Your task to perform on an android device: Search for "beats solo 3" on ebay, select the first entry, and add it to the cart. Image 0: 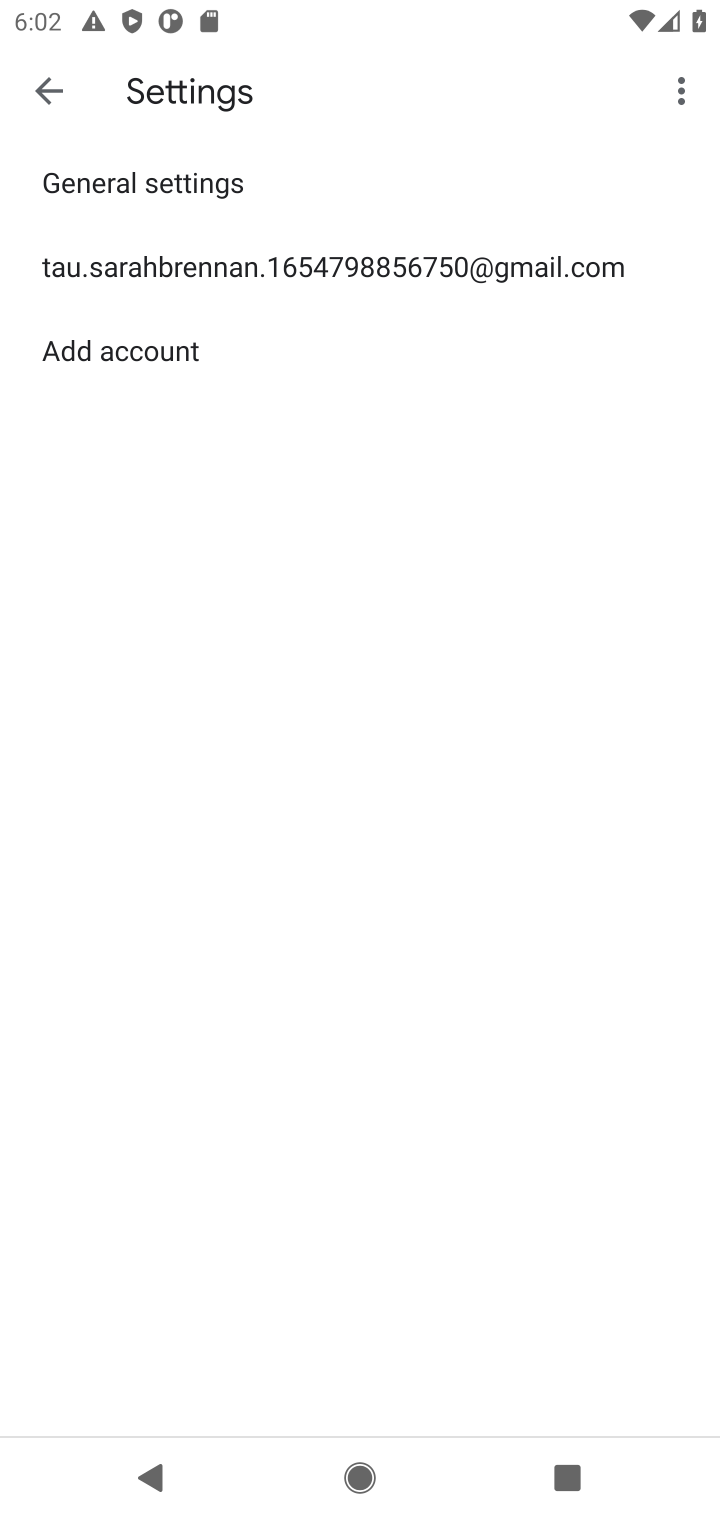
Step 0: press home button
Your task to perform on an android device: Search for "beats solo 3" on ebay, select the first entry, and add it to the cart. Image 1: 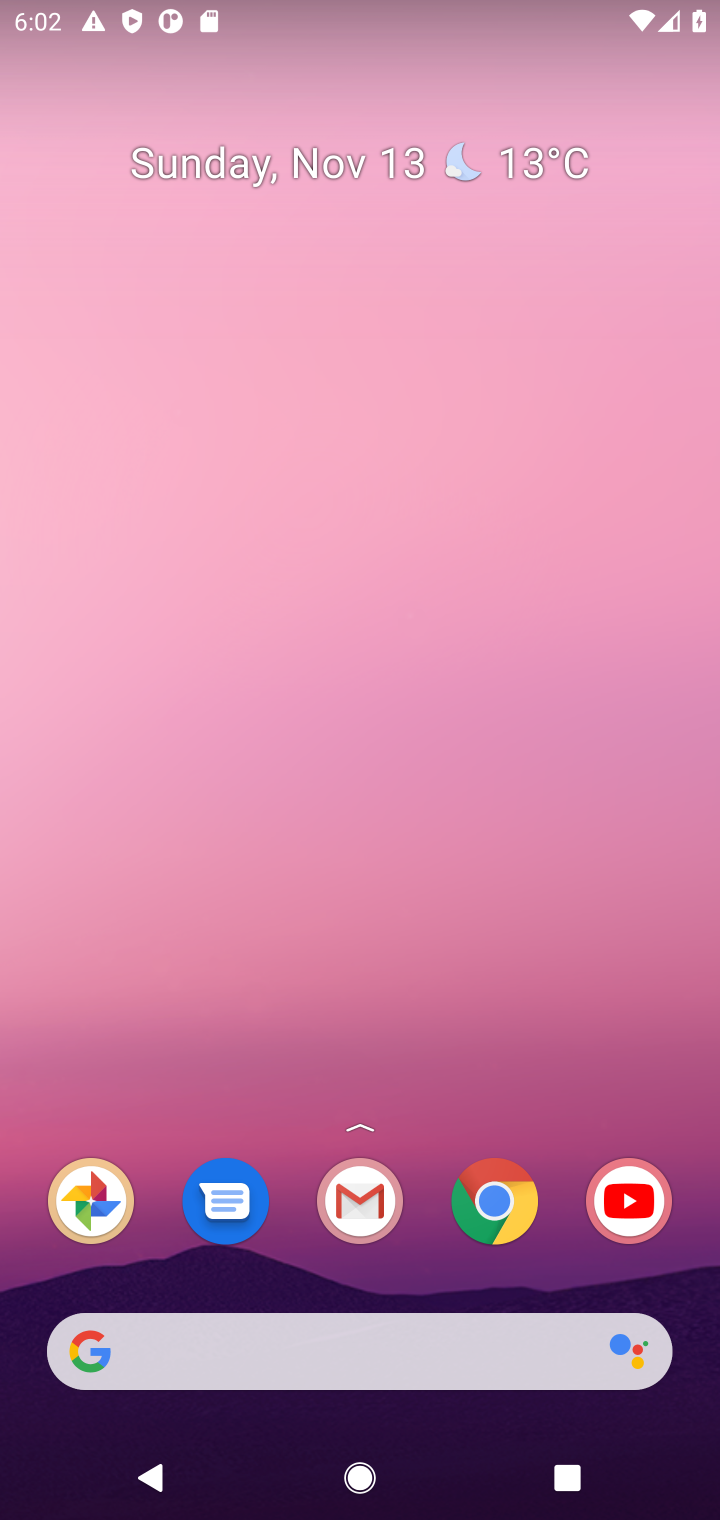
Step 1: drag from (428, 1303) to (411, 129)
Your task to perform on an android device: Search for "beats solo 3" on ebay, select the first entry, and add it to the cart. Image 2: 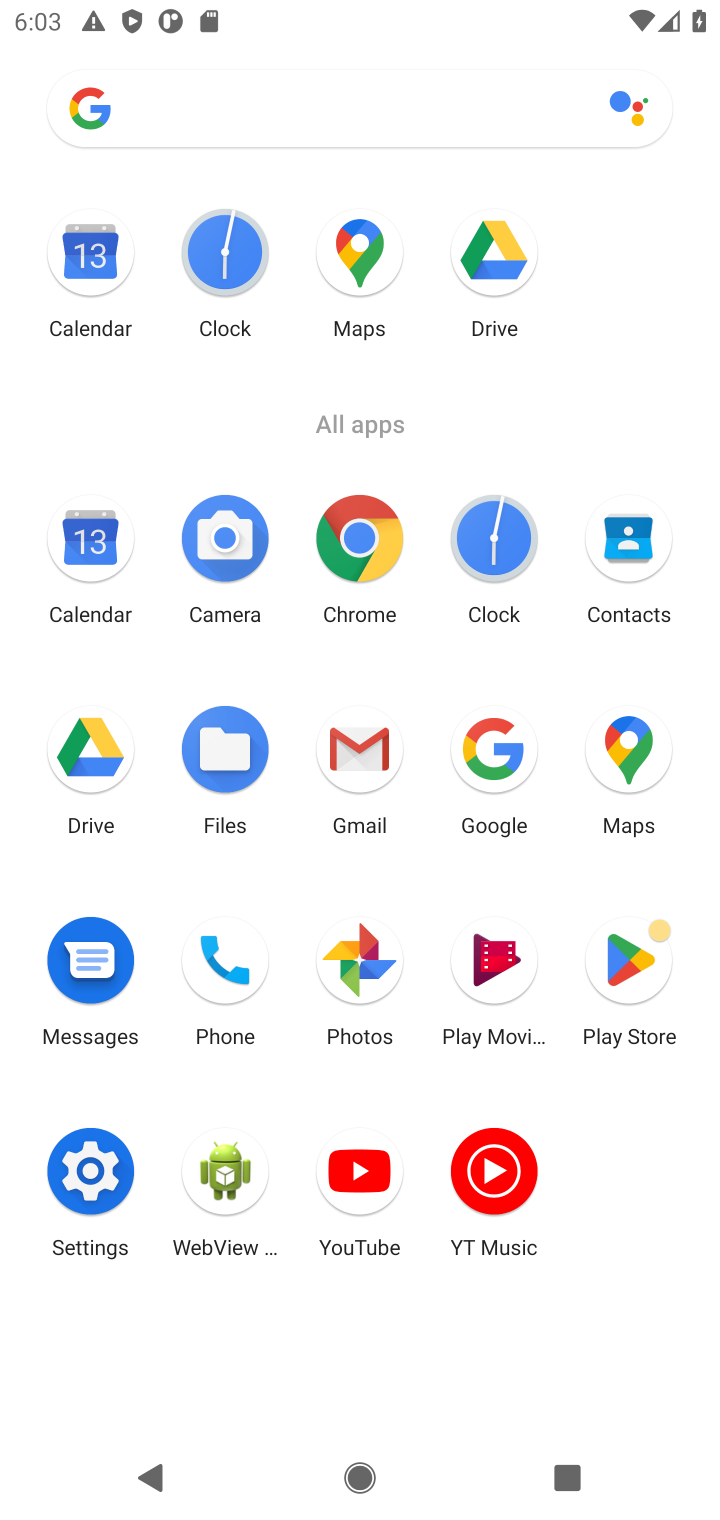
Step 2: click (360, 526)
Your task to perform on an android device: Search for "beats solo 3" on ebay, select the first entry, and add it to the cart. Image 3: 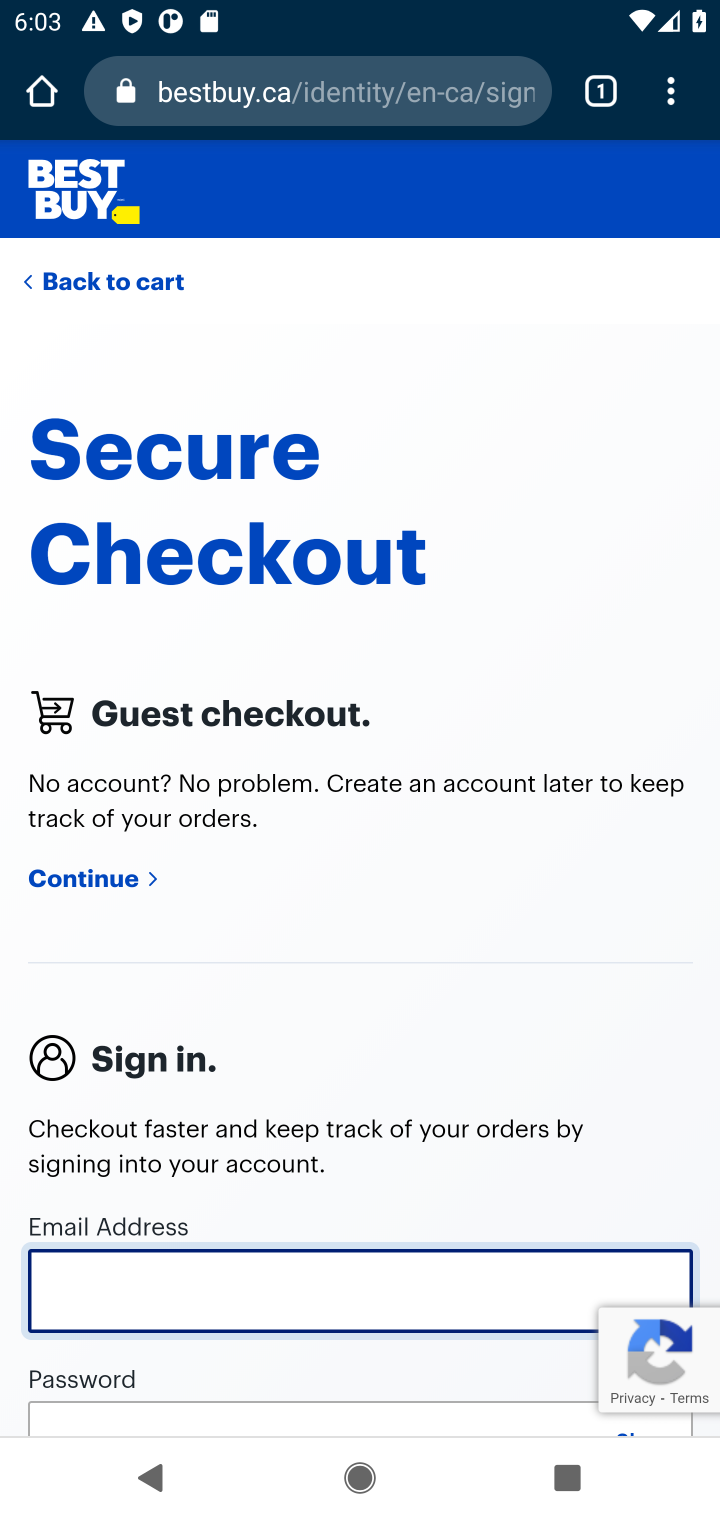
Step 3: click (380, 116)
Your task to perform on an android device: Search for "beats solo 3" on ebay, select the first entry, and add it to the cart. Image 4: 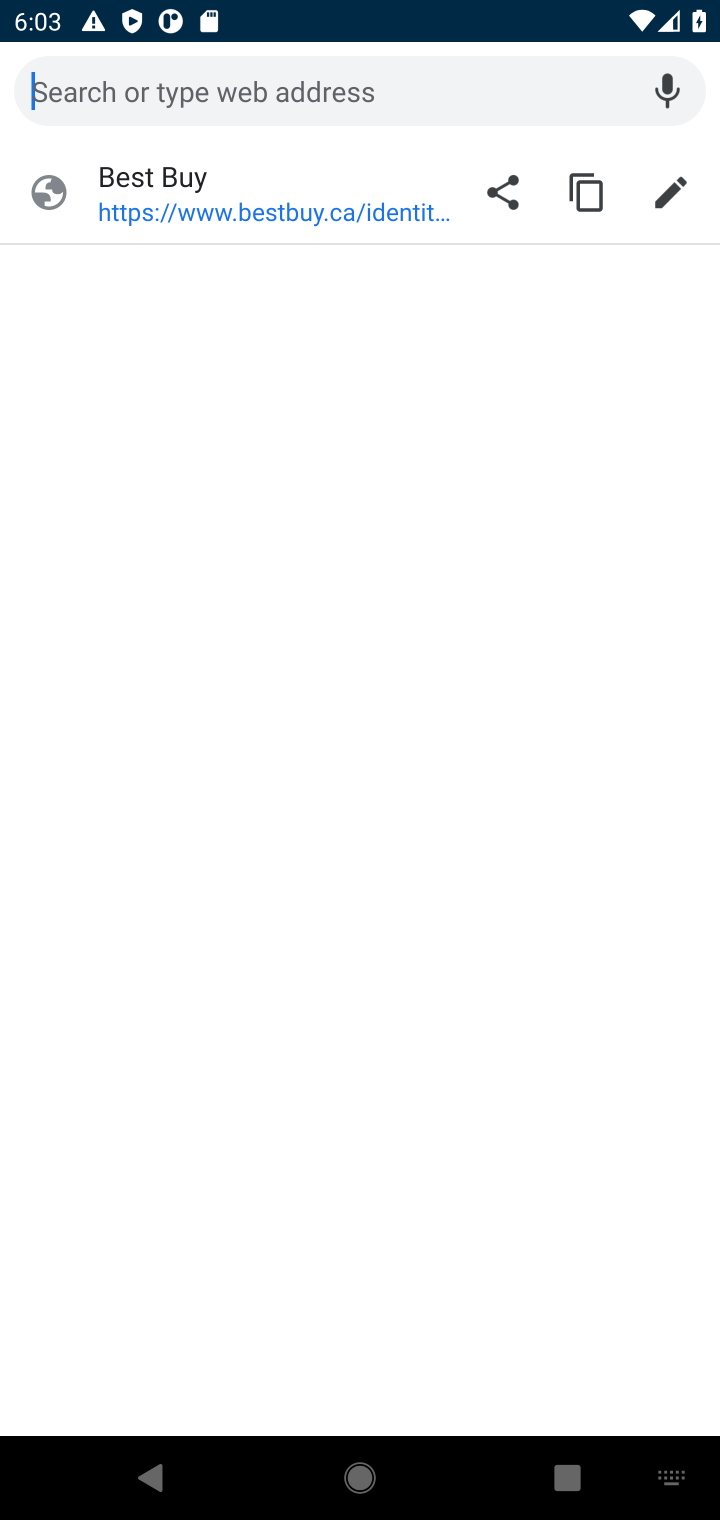
Step 4: type "ebay.com"
Your task to perform on an android device: Search for "beats solo 3" on ebay, select the first entry, and add it to the cart. Image 5: 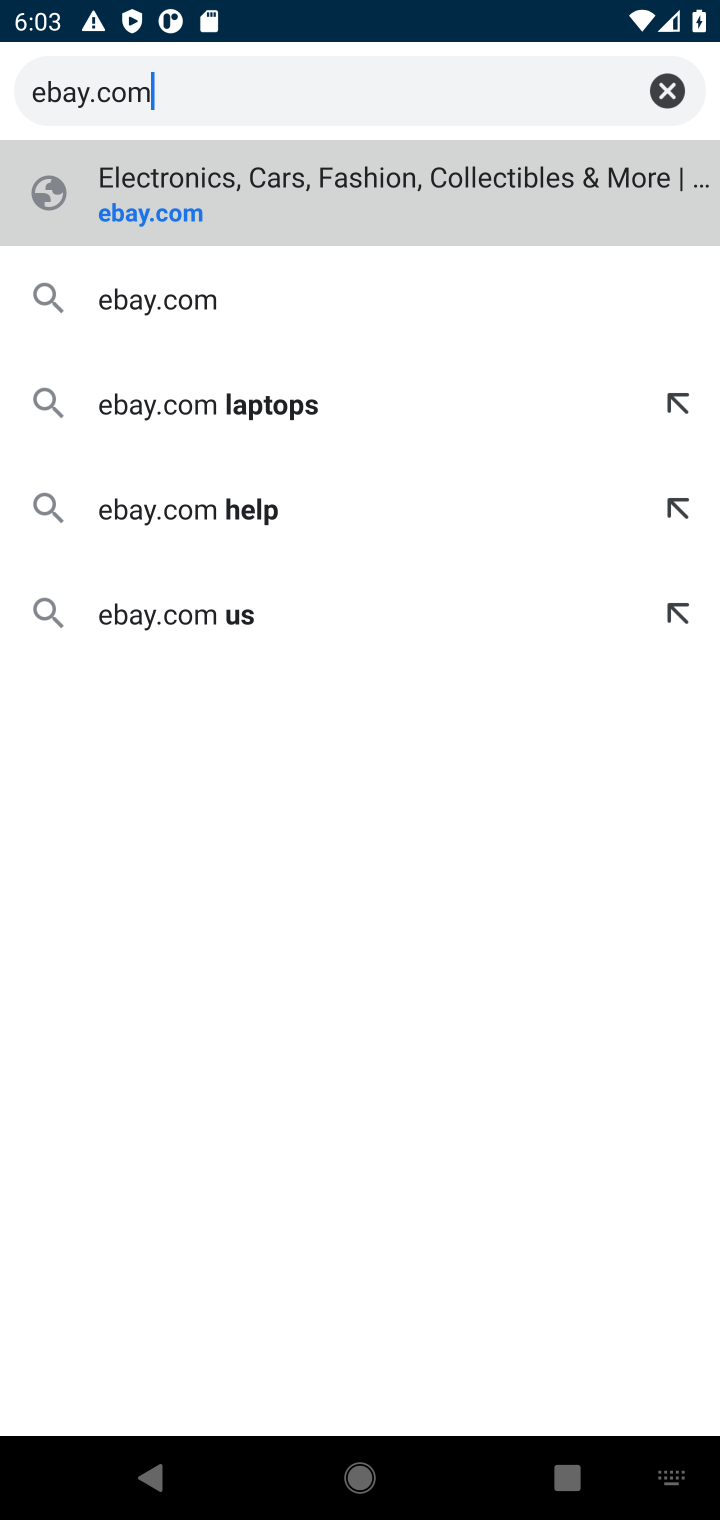
Step 5: press enter
Your task to perform on an android device: Search for "beats solo 3" on ebay, select the first entry, and add it to the cart. Image 6: 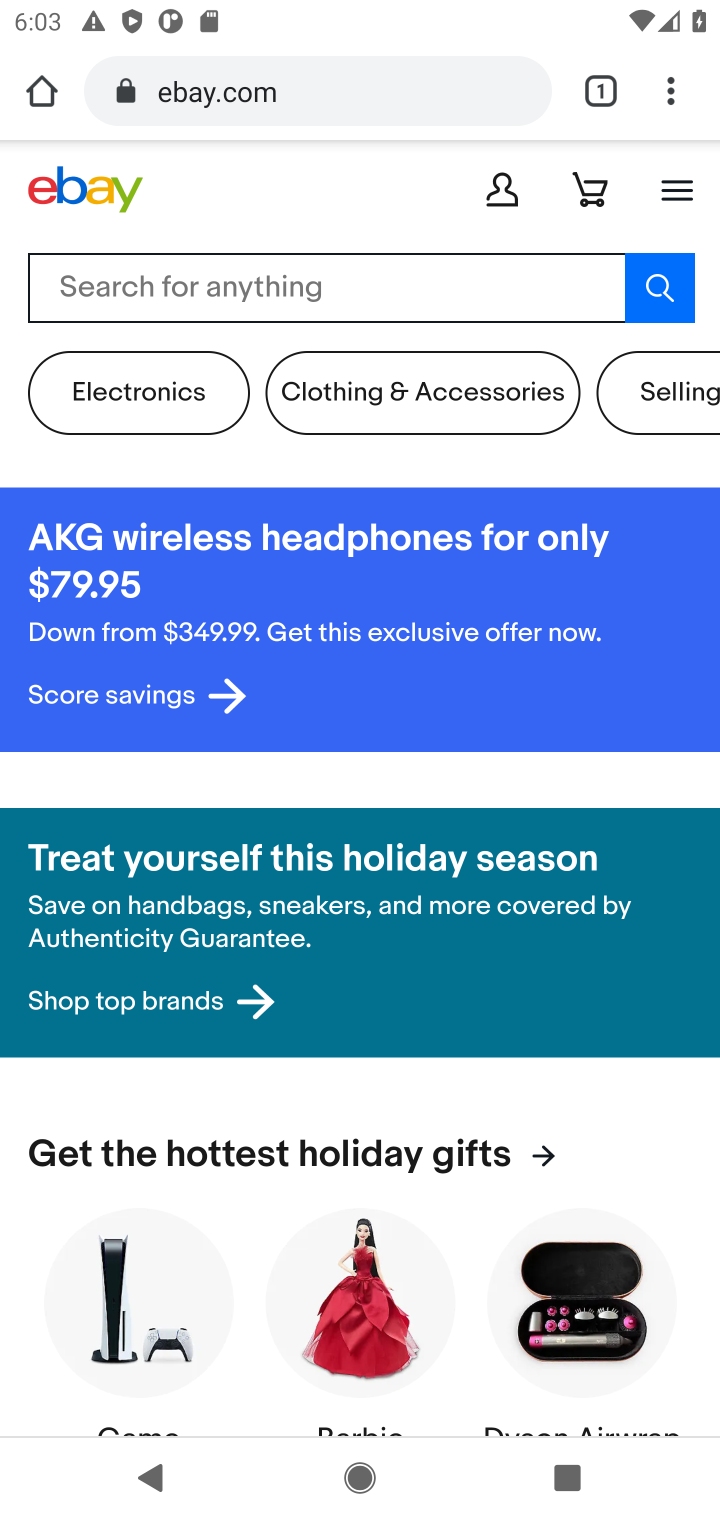
Step 6: click (293, 269)
Your task to perform on an android device: Search for "beats solo 3" on ebay, select the first entry, and add it to the cart. Image 7: 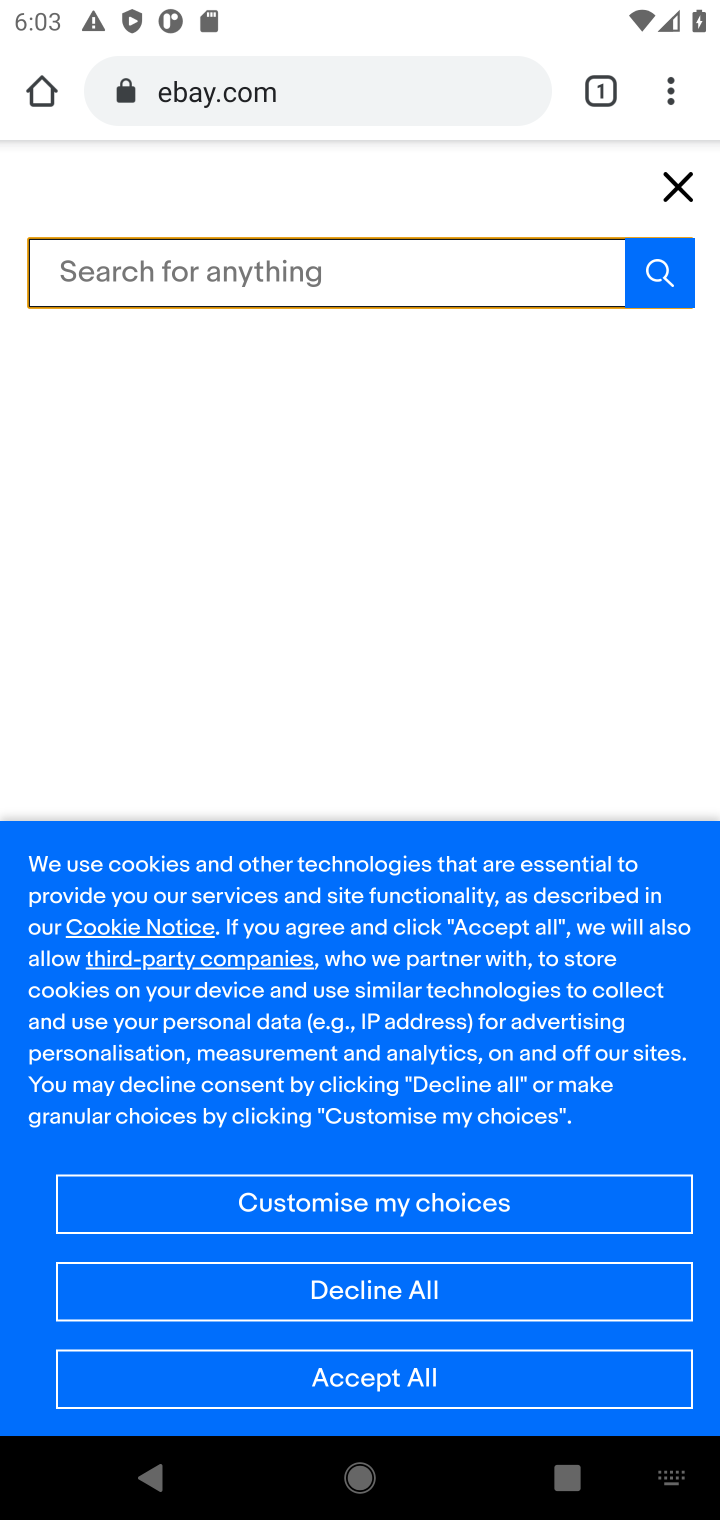
Step 7: type "beats solo 3"
Your task to perform on an android device: Search for "beats solo 3" on ebay, select the first entry, and add it to the cart. Image 8: 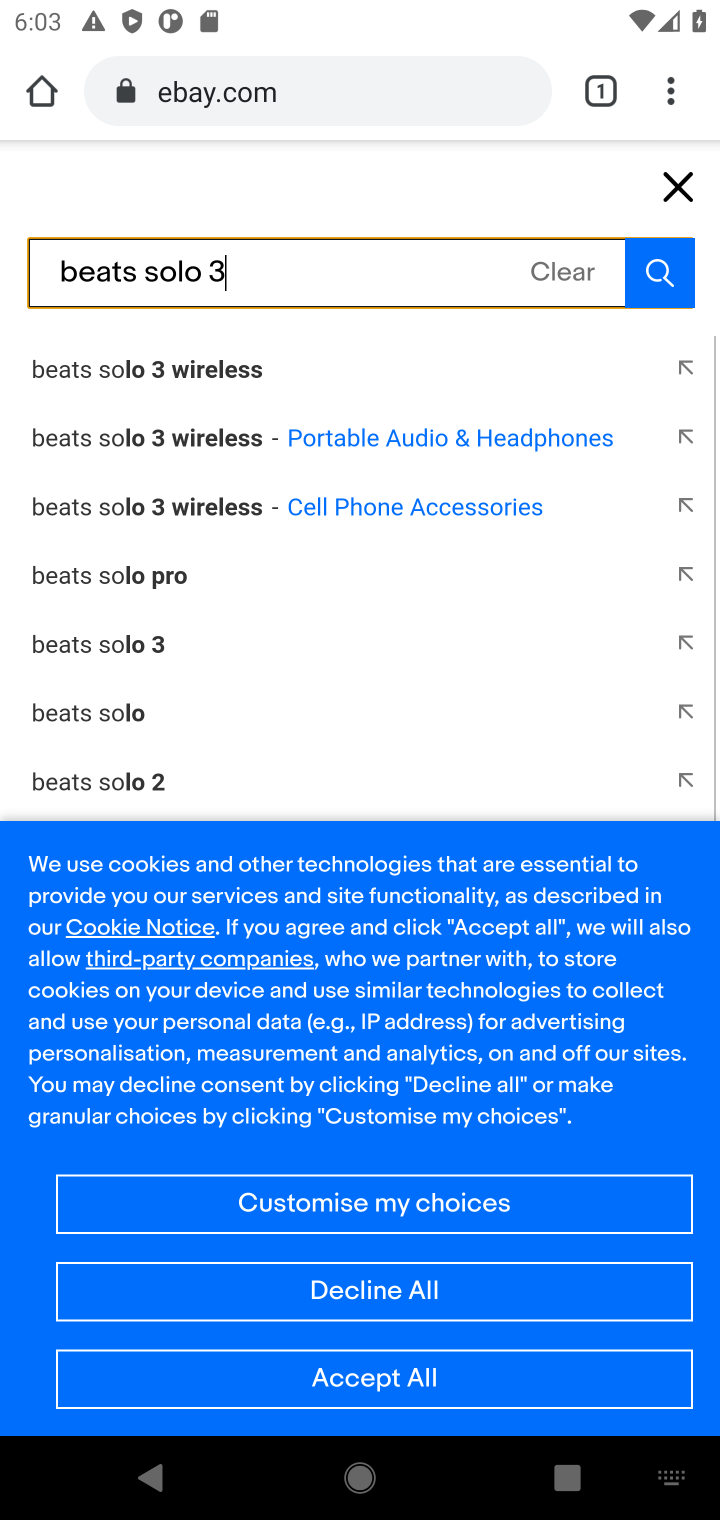
Step 8: press enter
Your task to perform on an android device: Search for "beats solo 3" on ebay, select the first entry, and add it to the cart. Image 9: 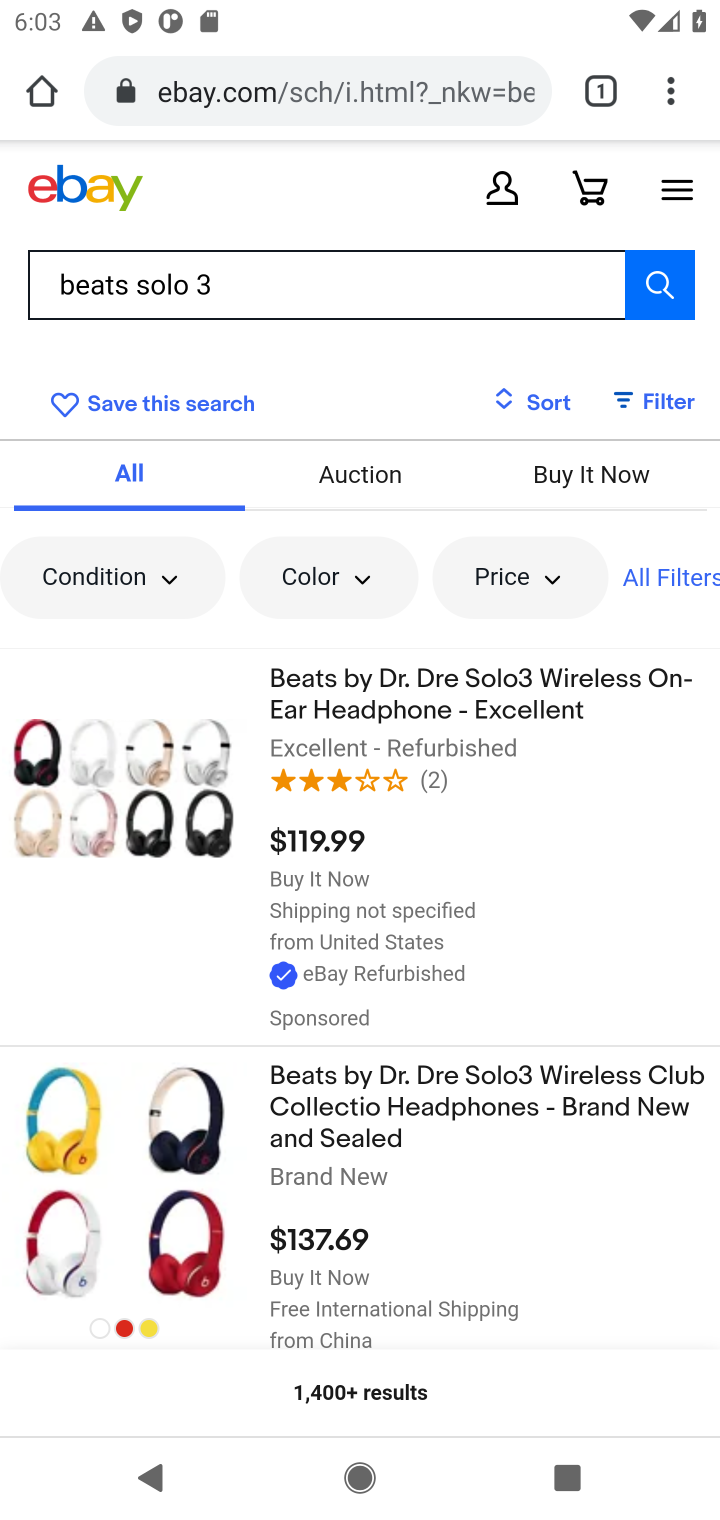
Step 9: click (415, 721)
Your task to perform on an android device: Search for "beats solo 3" on ebay, select the first entry, and add it to the cart. Image 10: 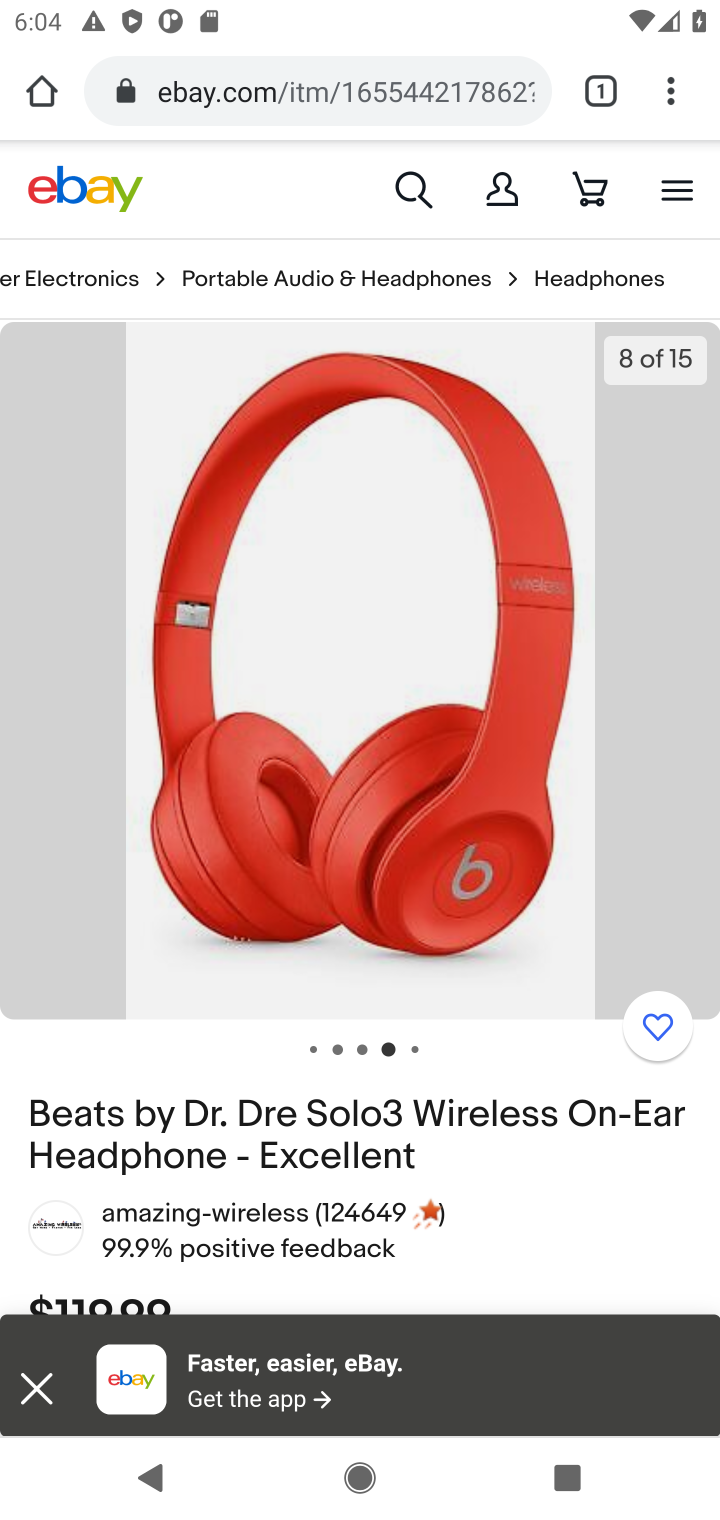
Step 10: drag from (511, 990) to (502, 282)
Your task to perform on an android device: Search for "beats solo 3" on ebay, select the first entry, and add it to the cart. Image 11: 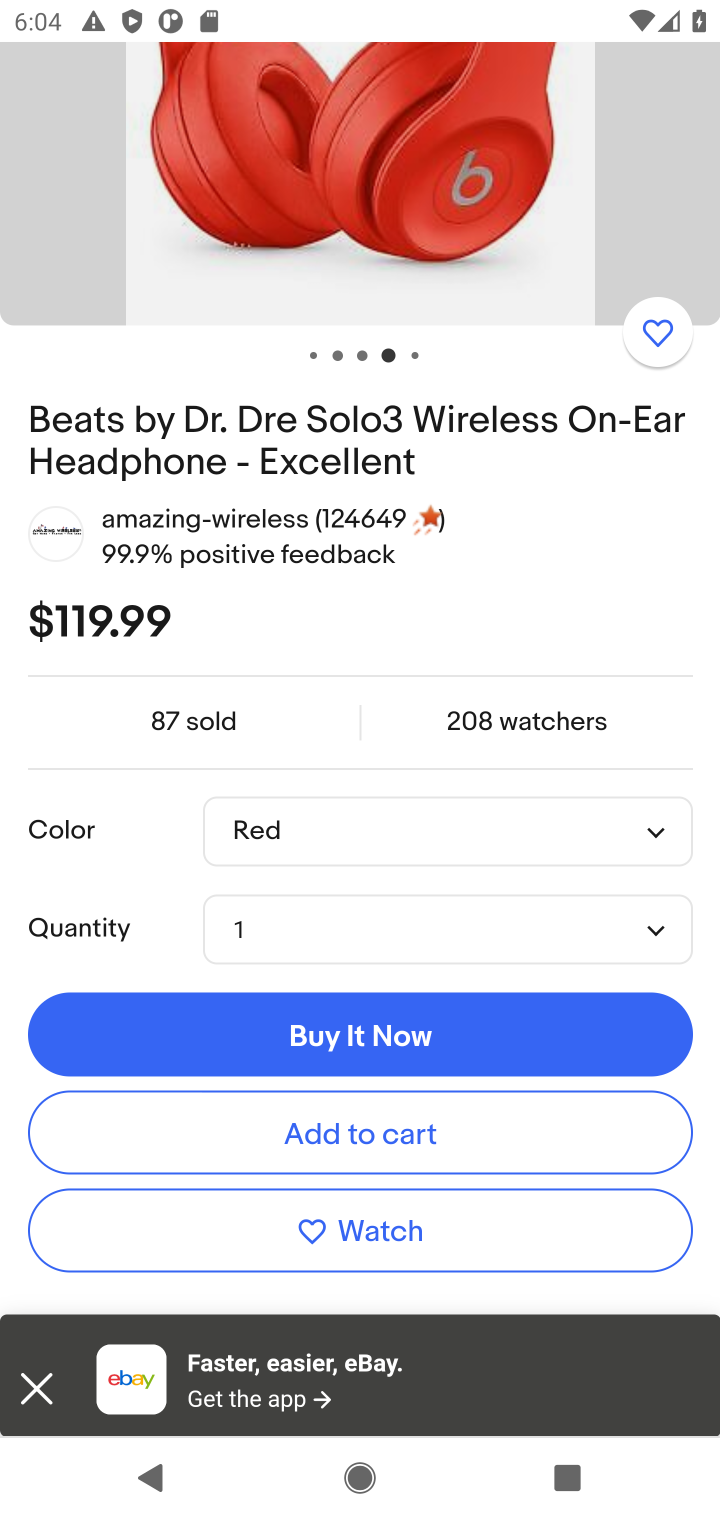
Step 11: click (404, 1121)
Your task to perform on an android device: Search for "beats solo 3" on ebay, select the first entry, and add it to the cart. Image 12: 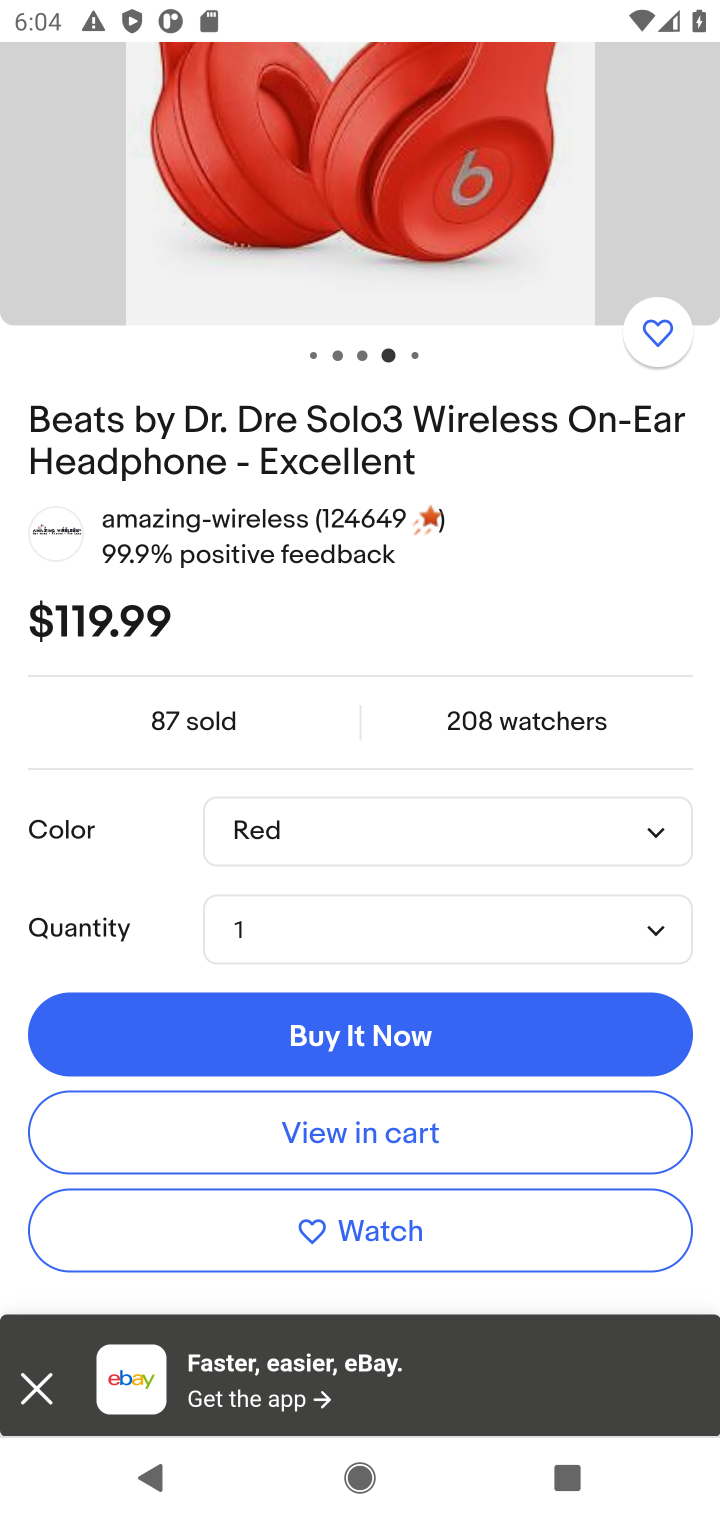
Step 12: task complete